Your task to perform on an android device: Search for vegetarian restaurants on Maps Image 0: 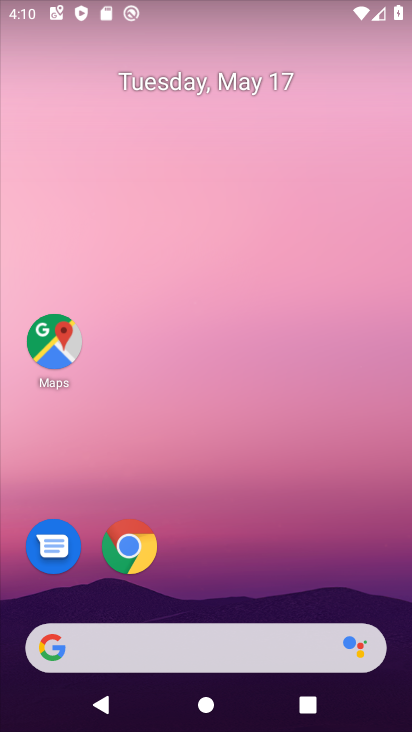
Step 0: click (53, 355)
Your task to perform on an android device: Search for vegetarian restaurants on Maps Image 1: 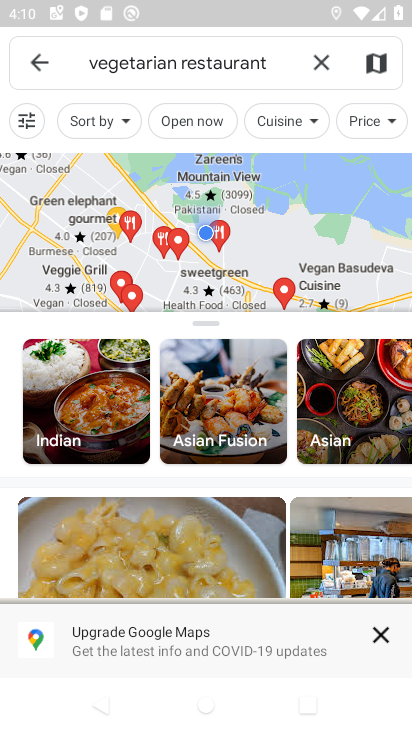
Step 1: drag from (283, 225) to (319, 113)
Your task to perform on an android device: Search for vegetarian restaurants on Maps Image 2: 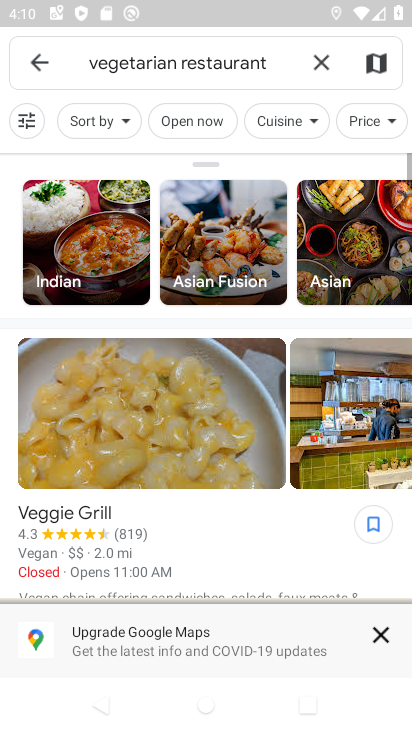
Step 2: click (271, 289)
Your task to perform on an android device: Search for vegetarian restaurants on Maps Image 3: 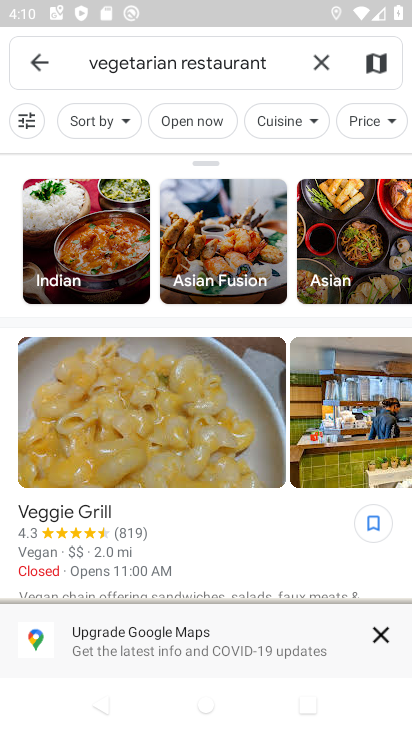
Step 3: task complete